Your task to perform on an android device: turn pop-ups on in chrome Image 0: 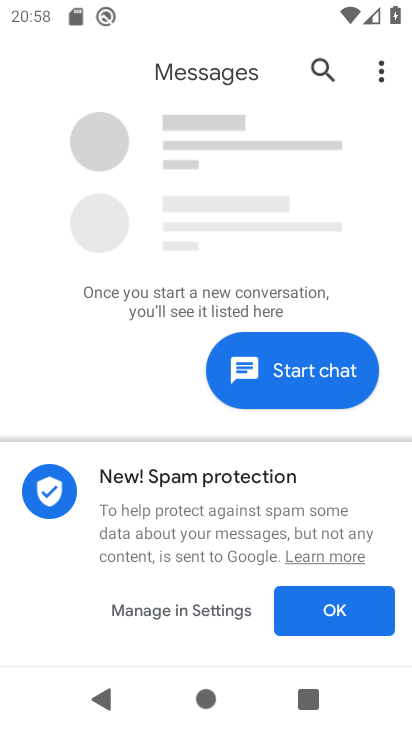
Step 0: click (381, 255)
Your task to perform on an android device: turn pop-ups on in chrome Image 1: 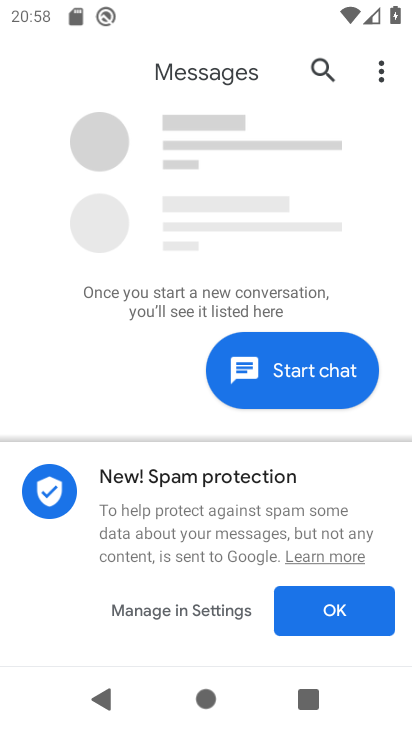
Step 1: press home button
Your task to perform on an android device: turn pop-ups on in chrome Image 2: 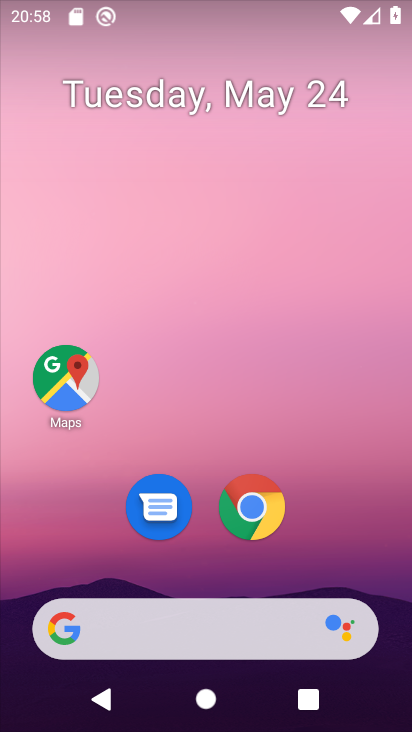
Step 2: drag from (223, 546) to (209, 133)
Your task to perform on an android device: turn pop-ups on in chrome Image 3: 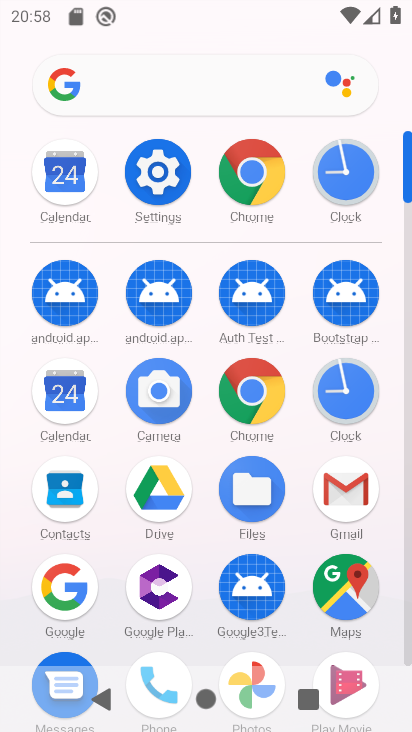
Step 3: click (257, 178)
Your task to perform on an android device: turn pop-ups on in chrome Image 4: 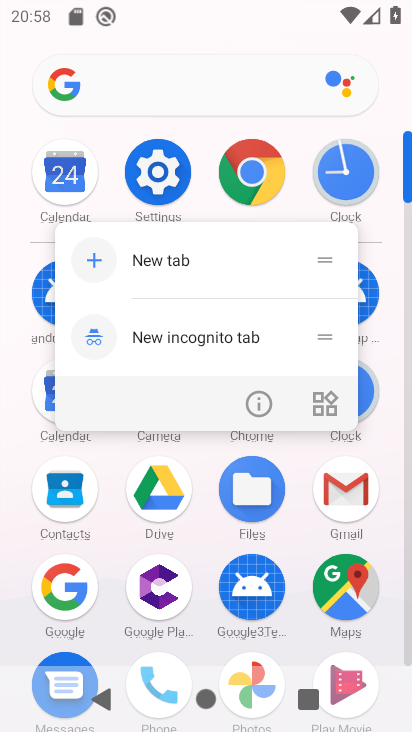
Step 4: click (265, 393)
Your task to perform on an android device: turn pop-ups on in chrome Image 5: 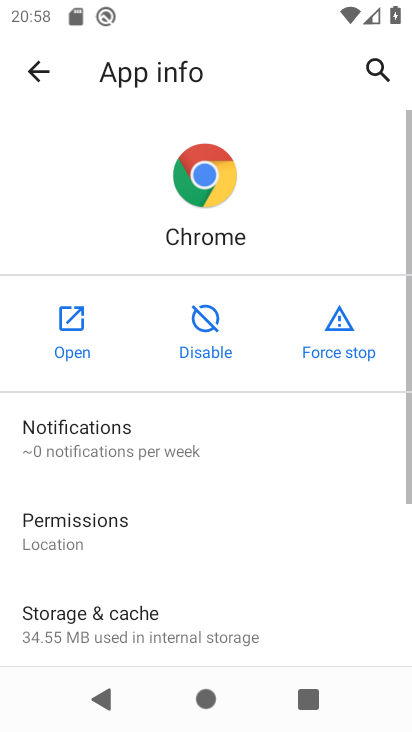
Step 5: click (35, 325)
Your task to perform on an android device: turn pop-ups on in chrome Image 6: 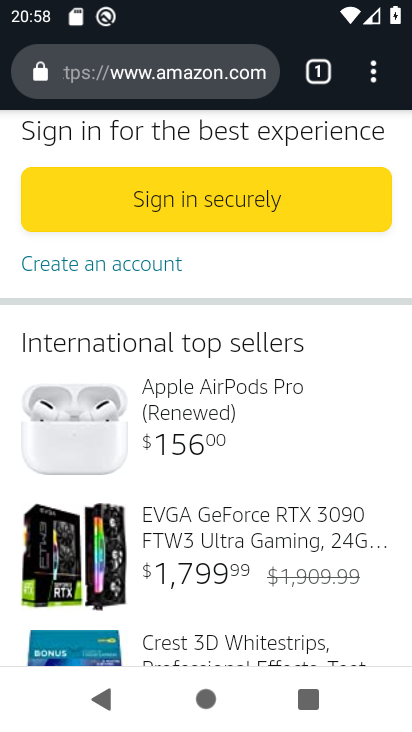
Step 6: click (374, 64)
Your task to perform on an android device: turn pop-ups on in chrome Image 7: 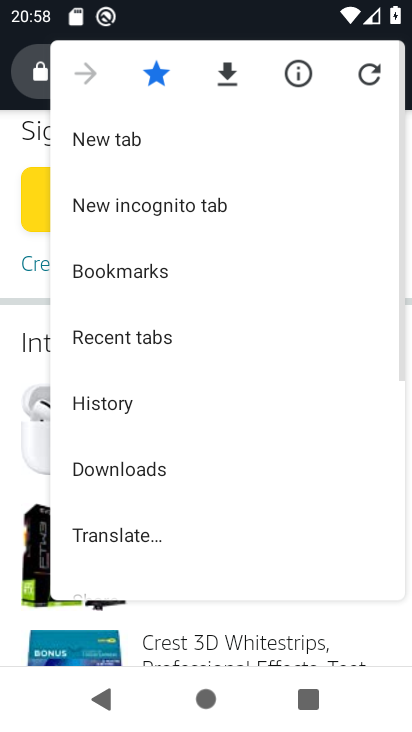
Step 7: drag from (195, 493) to (335, 0)
Your task to perform on an android device: turn pop-ups on in chrome Image 8: 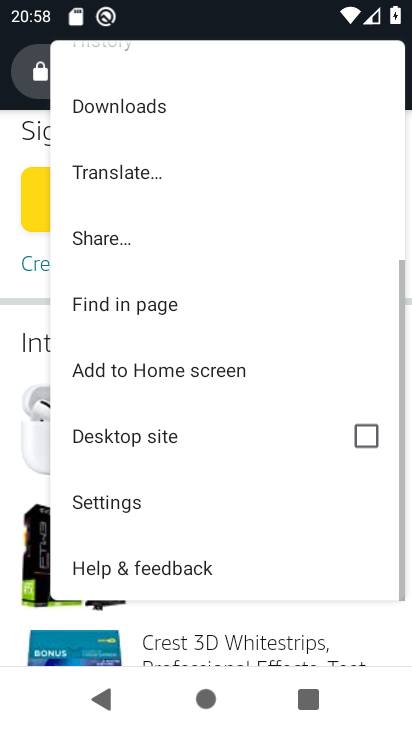
Step 8: click (134, 489)
Your task to perform on an android device: turn pop-ups on in chrome Image 9: 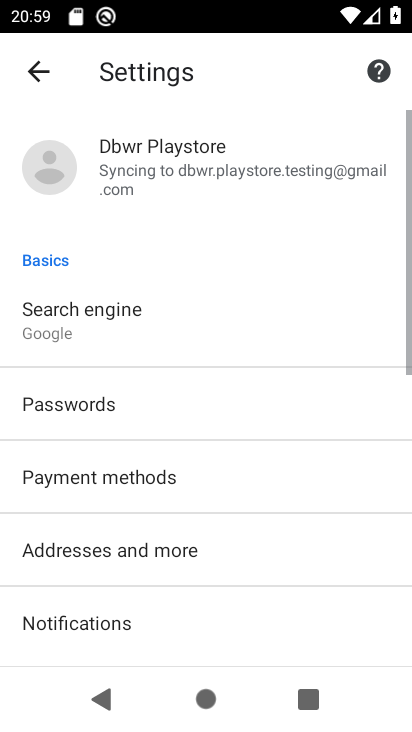
Step 9: drag from (214, 581) to (287, 171)
Your task to perform on an android device: turn pop-ups on in chrome Image 10: 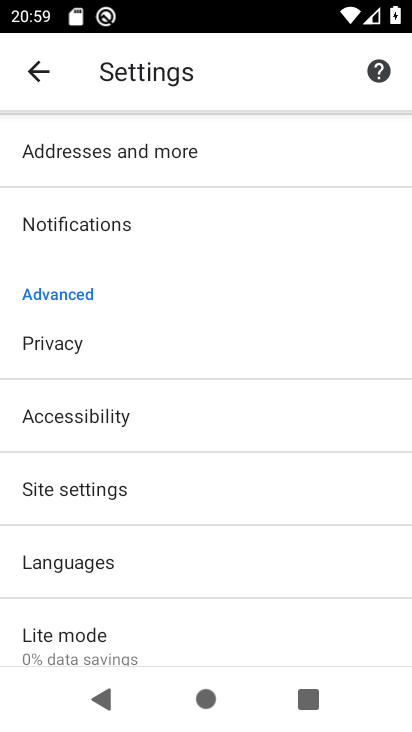
Step 10: click (144, 496)
Your task to perform on an android device: turn pop-ups on in chrome Image 11: 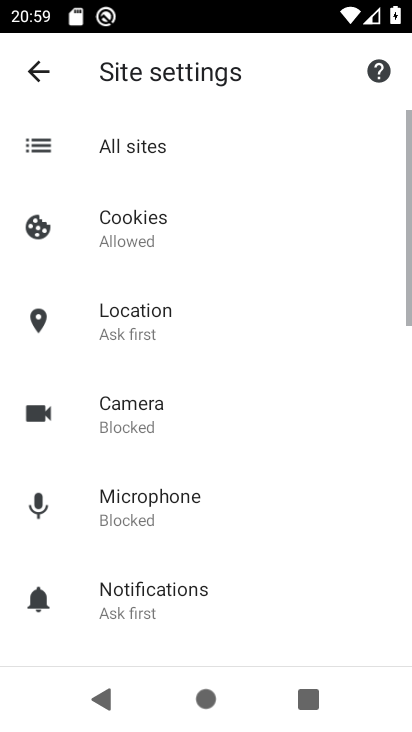
Step 11: drag from (180, 617) to (258, 200)
Your task to perform on an android device: turn pop-ups on in chrome Image 12: 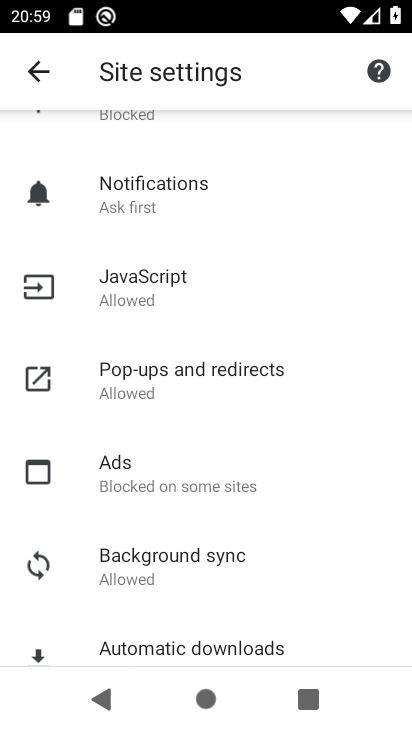
Step 12: click (210, 359)
Your task to perform on an android device: turn pop-ups on in chrome Image 13: 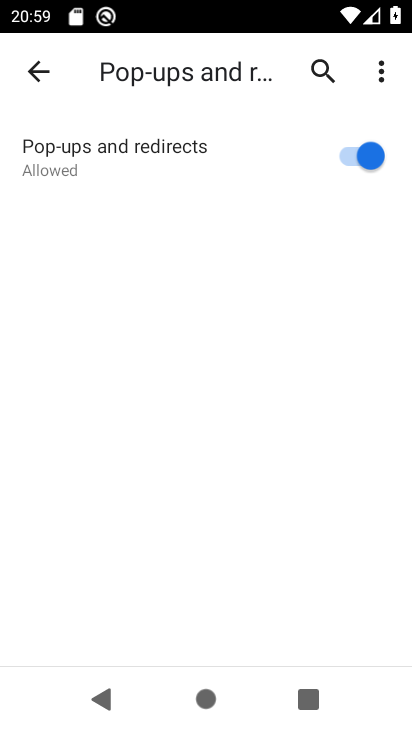
Step 13: task complete